Your task to perform on an android device: set the stopwatch Image 0: 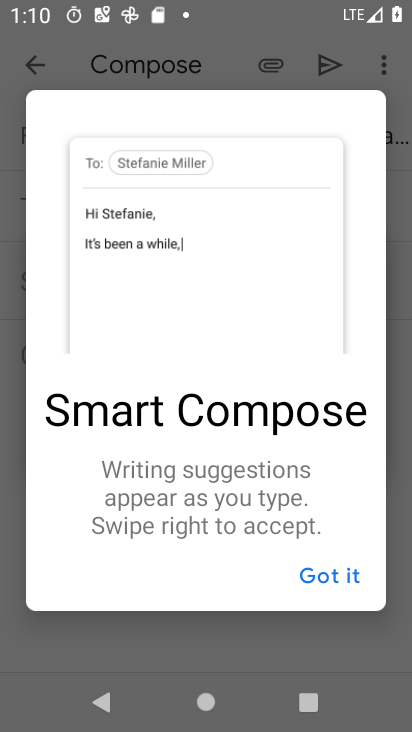
Step 0: press home button
Your task to perform on an android device: set the stopwatch Image 1: 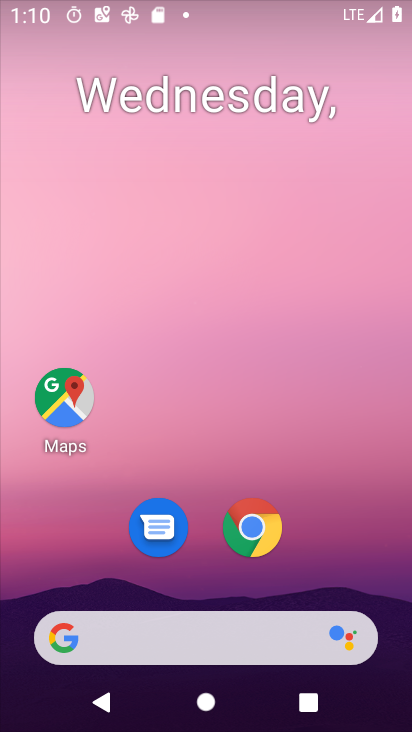
Step 1: drag from (332, 638) to (308, 10)
Your task to perform on an android device: set the stopwatch Image 2: 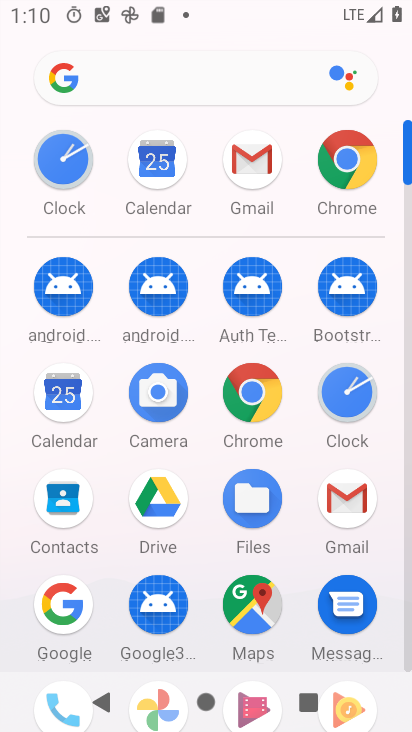
Step 2: click (338, 386)
Your task to perform on an android device: set the stopwatch Image 3: 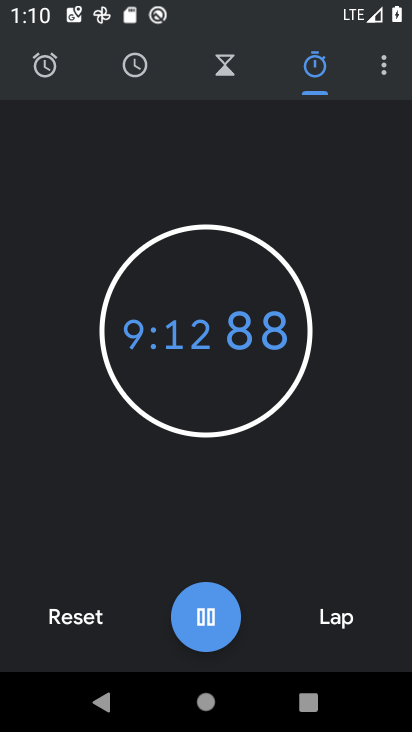
Step 3: task complete